Your task to perform on an android device: uninstall "Facebook" Image 0: 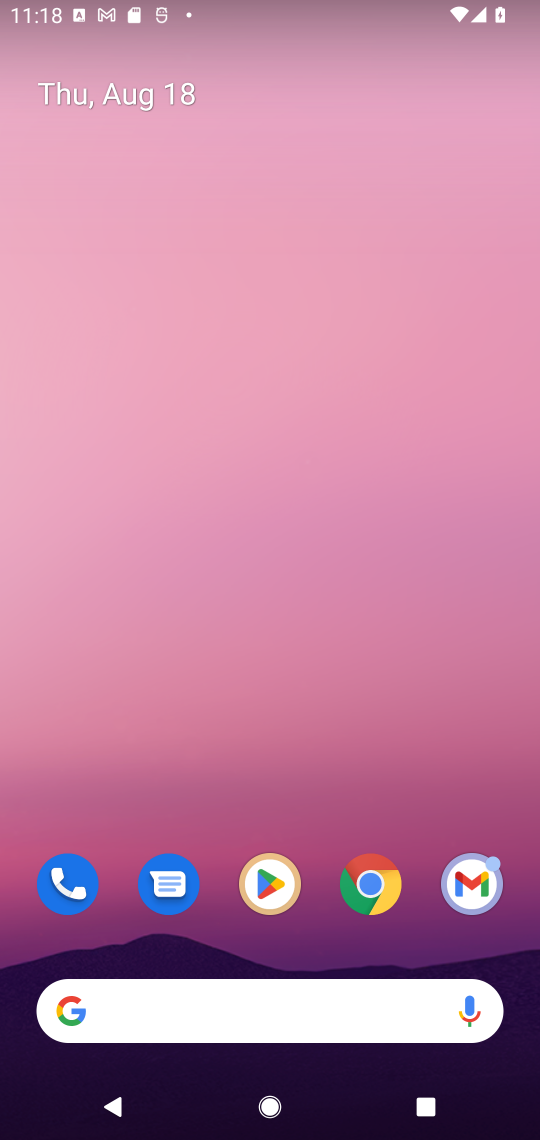
Step 0: drag from (278, 1000) to (290, 248)
Your task to perform on an android device: uninstall "Facebook" Image 1: 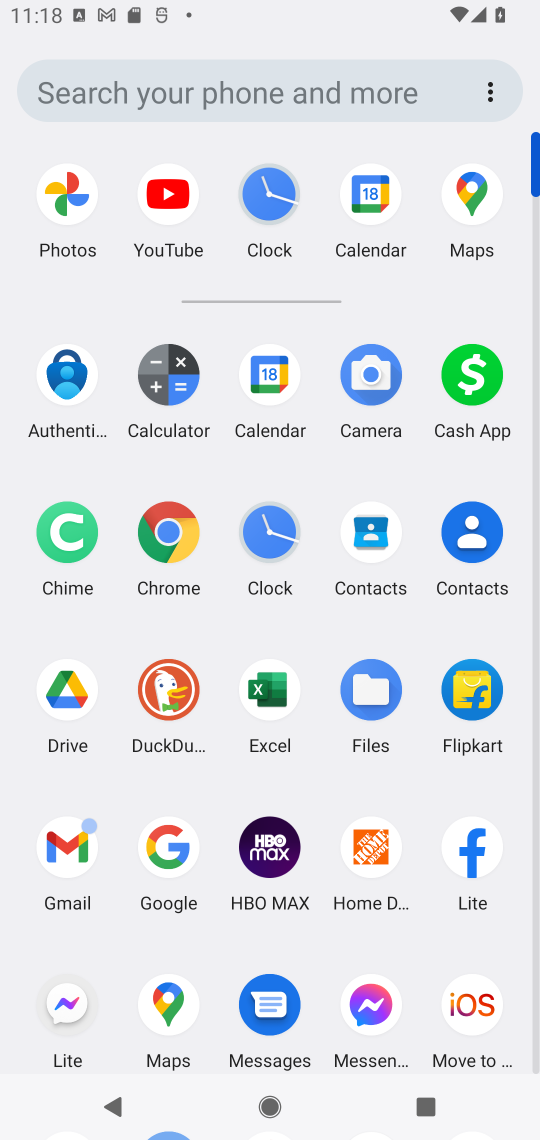
Step 1: drag from (424, 952) to (423, 459)
Your task to perform on an android device: uninstall "Facebook" Image 2: 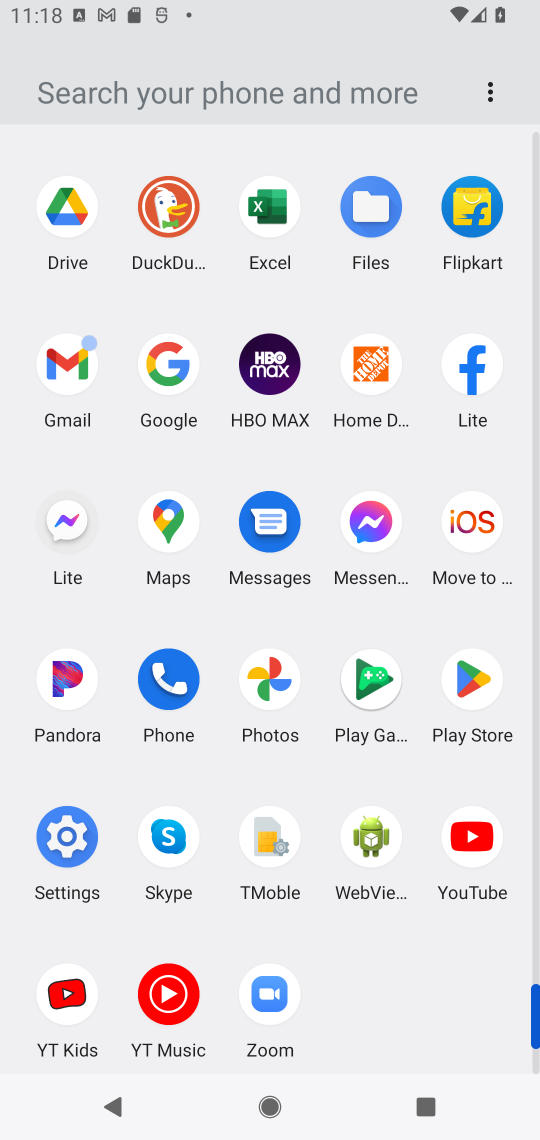
Step 2: click (479, 682)
Your task to perform on an android device: uninstall "Facebook" Image 3: 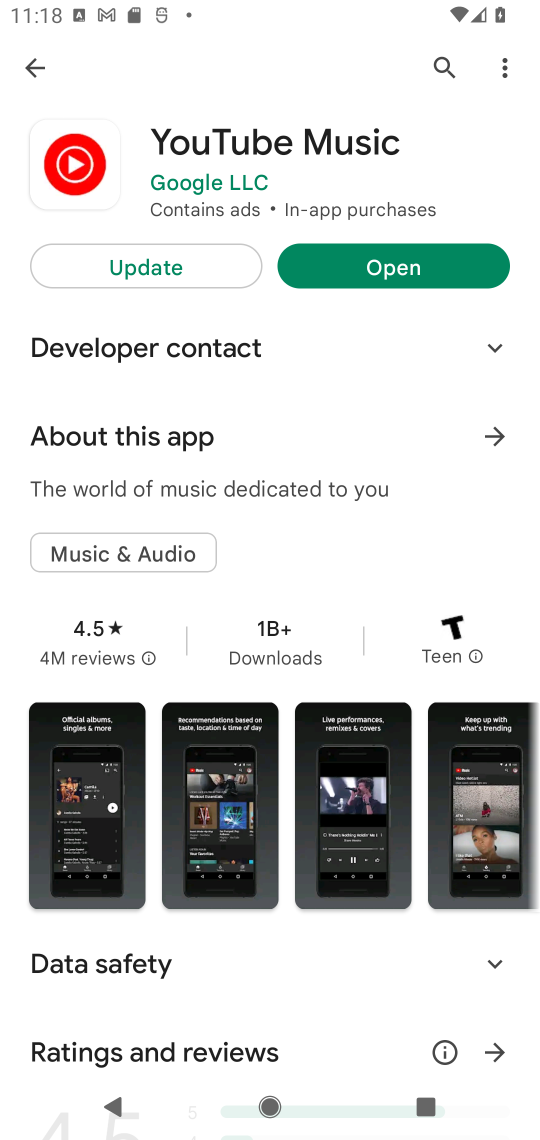
Step 3: press back button
Your task to perform on an android device: uninstall "Facebook" Image 4: 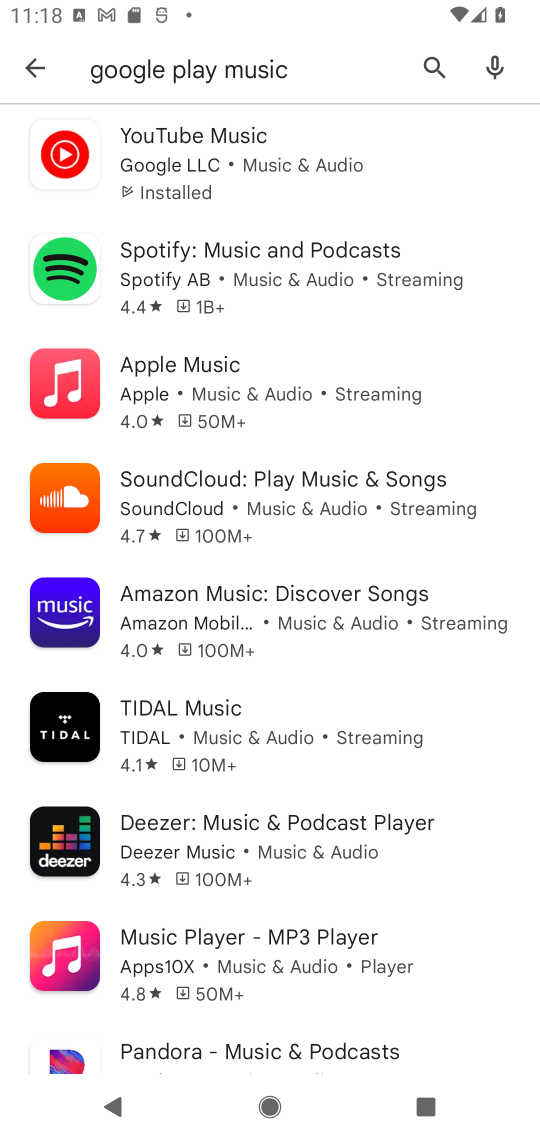
Step 4: press back button
Your task to perform on an android device: uninstall "Facebook" Image 5: 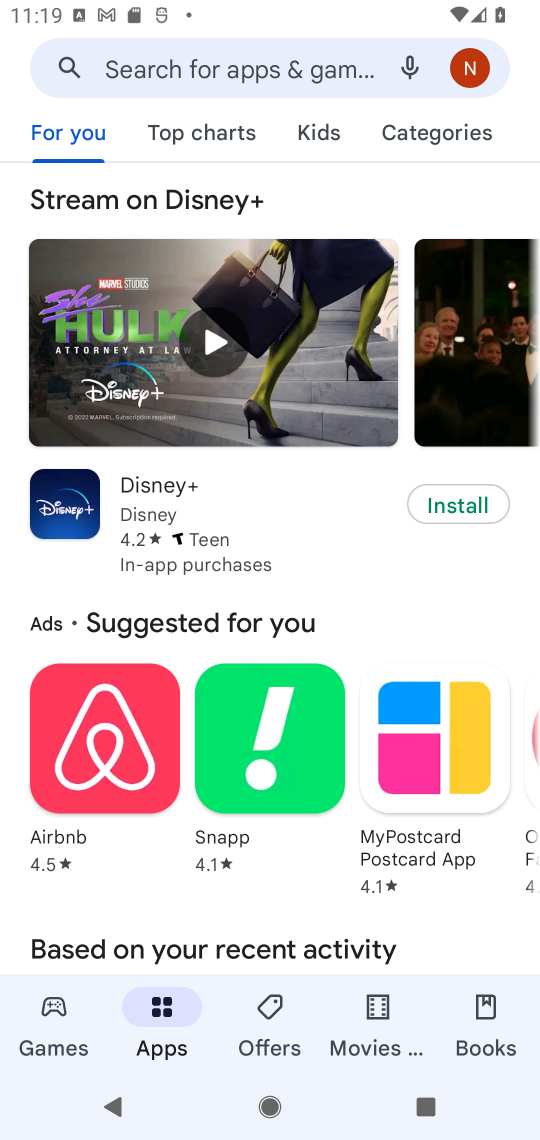
Step 5: click (305, 70)
Your task to perform on an android device: uninstall "Facebook" Image 6: 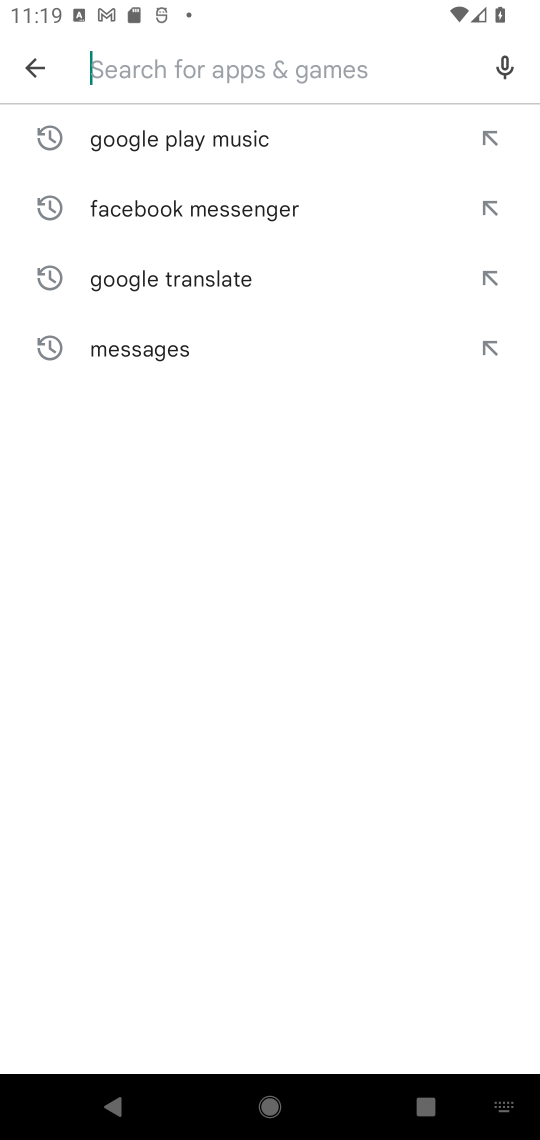
Step 6: type "Facebook"
Your task to perform on an android device: uninstall "Facebook" Image 7: 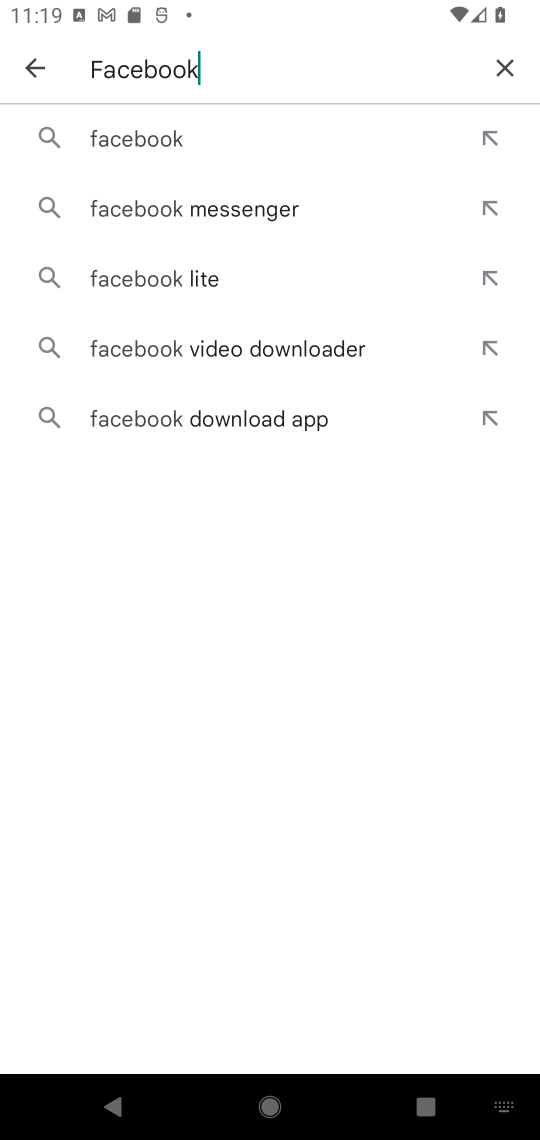
Step 7: click (172, 147)
Your task to perform on an android device: uninstall "Facebook" Image 8: 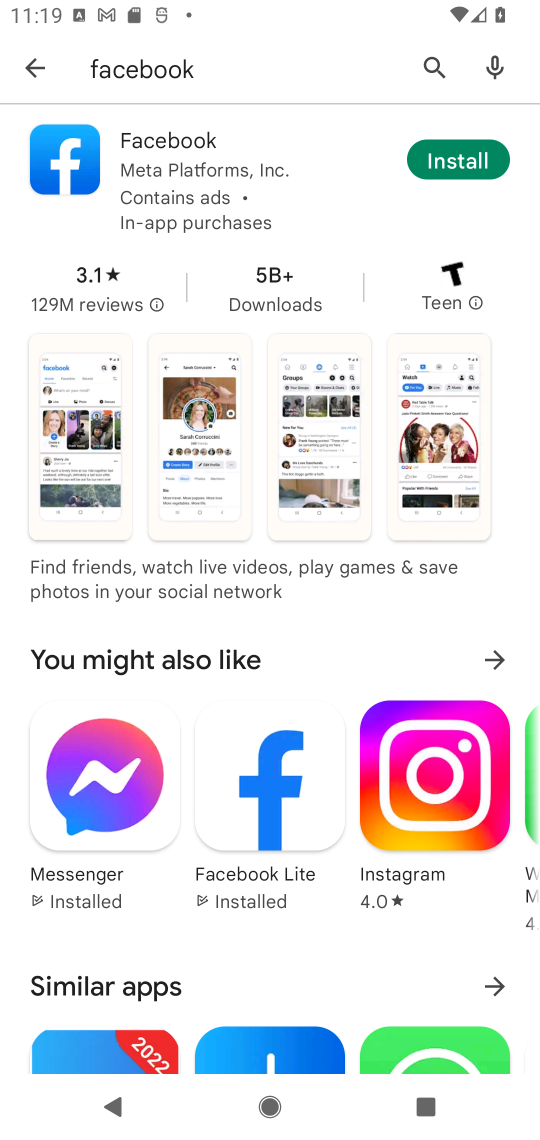
Step 8: task complete